Your task to perform on an android device: check data usage Image 0: 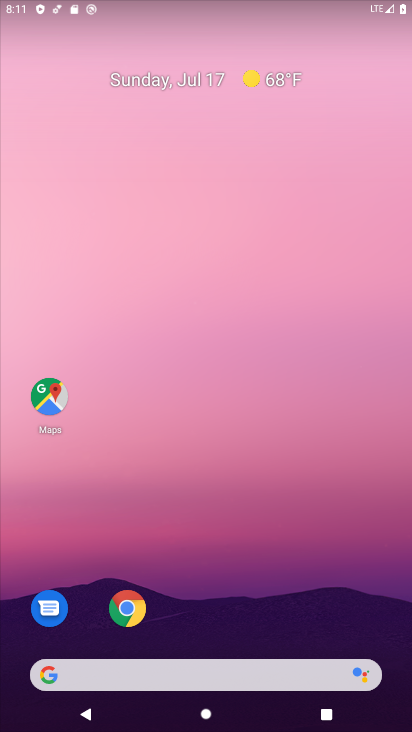
Step 0: drag from (269, 605) to (325, 8)
Your task to perform on an android device: check data usage Image 1: 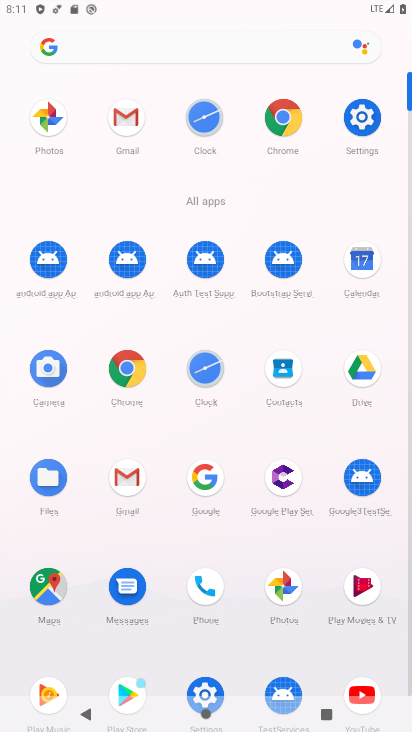
Step 1: click (361, 119)
Your task to perform on an android device: check data usage Image 2: 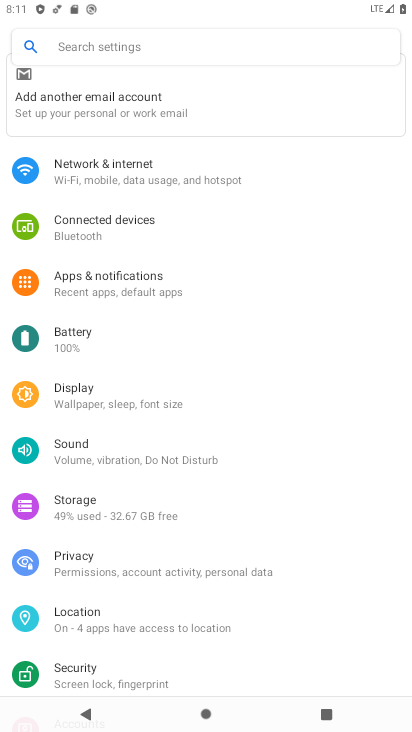
Step 2: click (191, 169)
Your task to perform on an android device: check data usage Image 3: 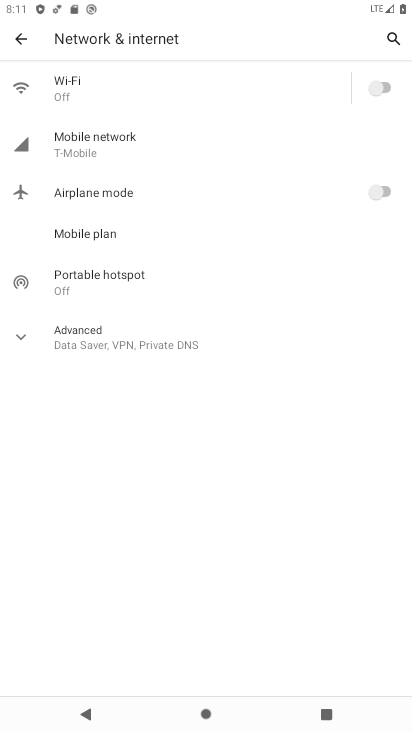
Step 3: click (109, 130)
Your task to perform on an android device: check data usage Image 4: 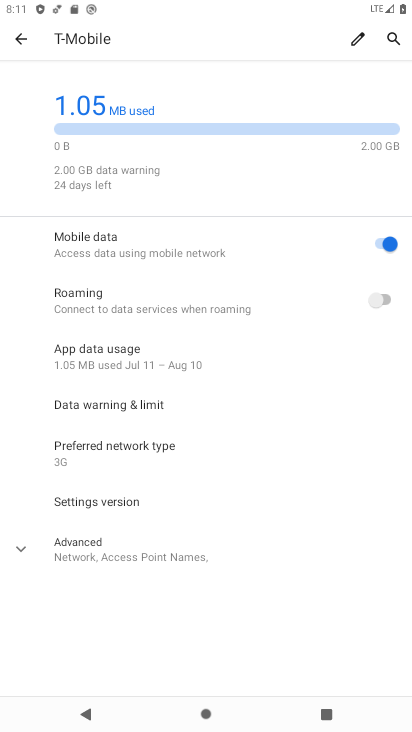
Step 4: click (98, 366)
Your task to perform on an android device: check data usage Image 5: 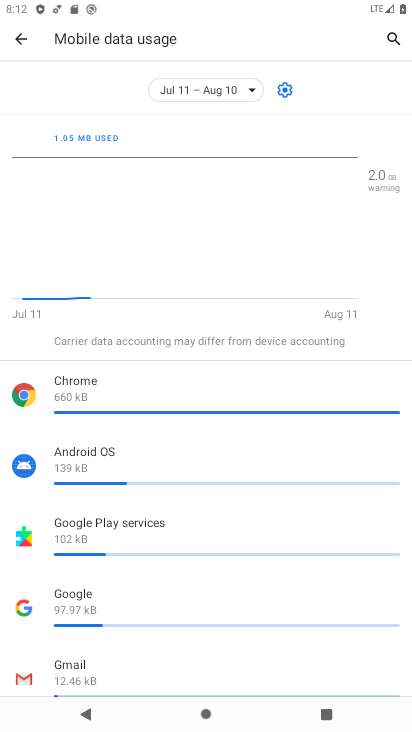
Step 5: task complete